Your task to perform on an android device: allow cookies in the chrome app Image 0: 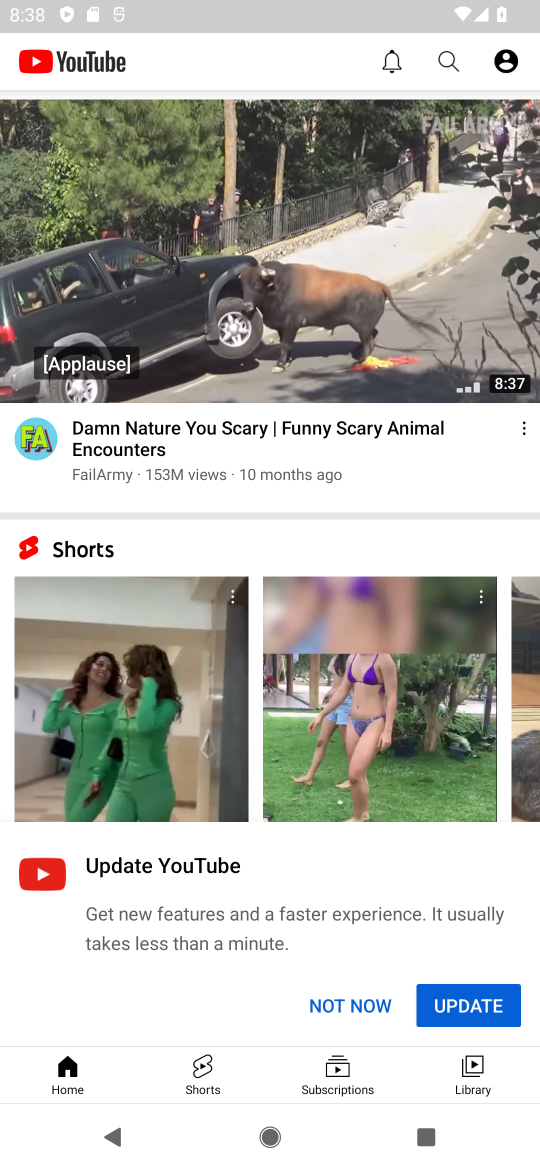
Step 0: press back button
Your task to perform on an android device: allow cookies in the chrome app Image 1: 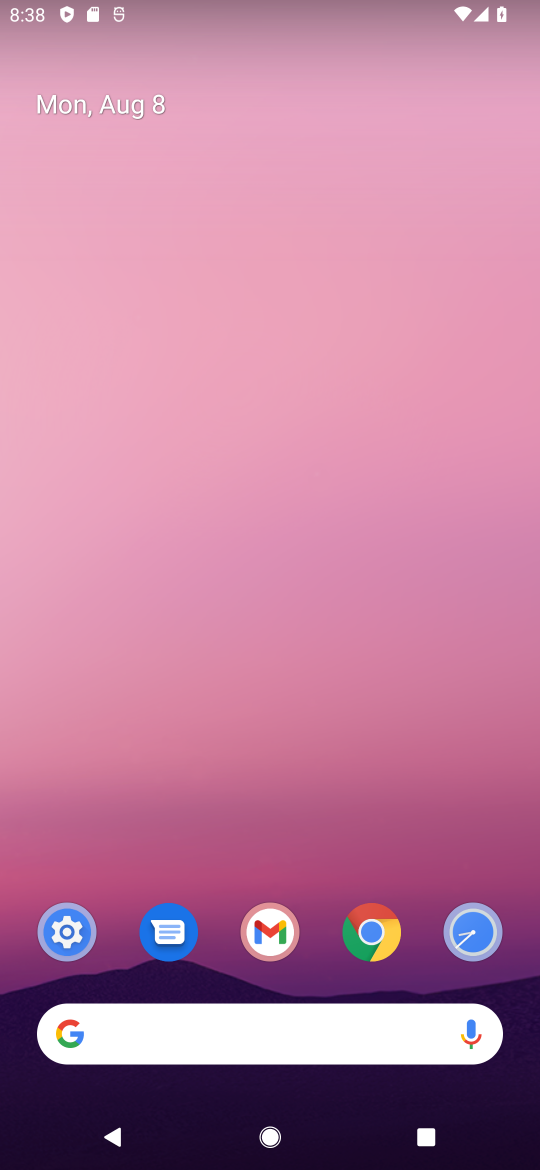
Step 1: click (378, 923)
Your task to perform on an android device: allow cookies in the chrome app Image 2: 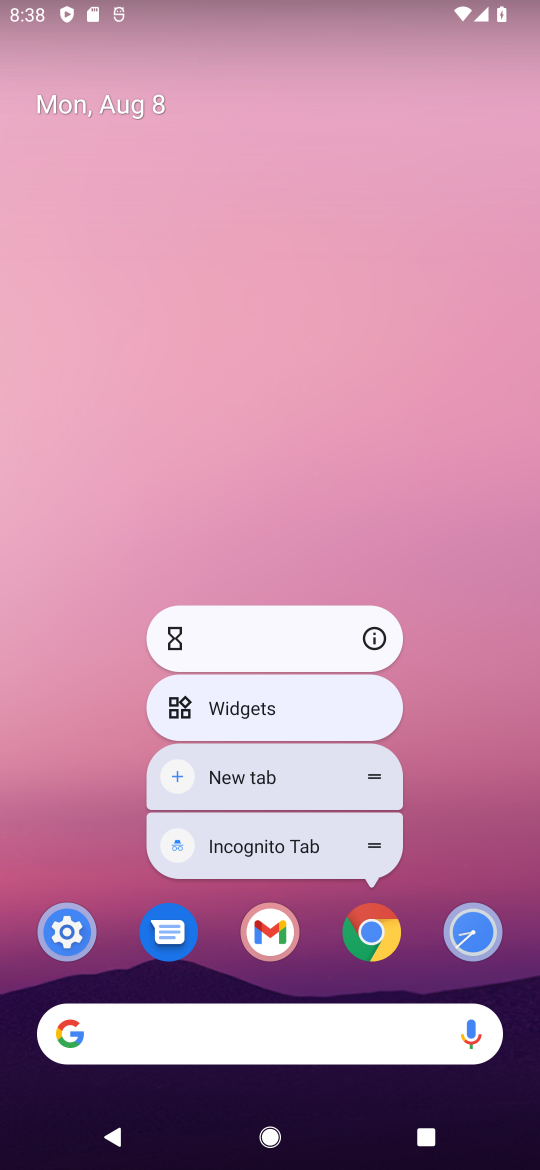
Step 2: click (367, 934)
Your task to perform on an android device: allow cookies in the chrome app Image 3: 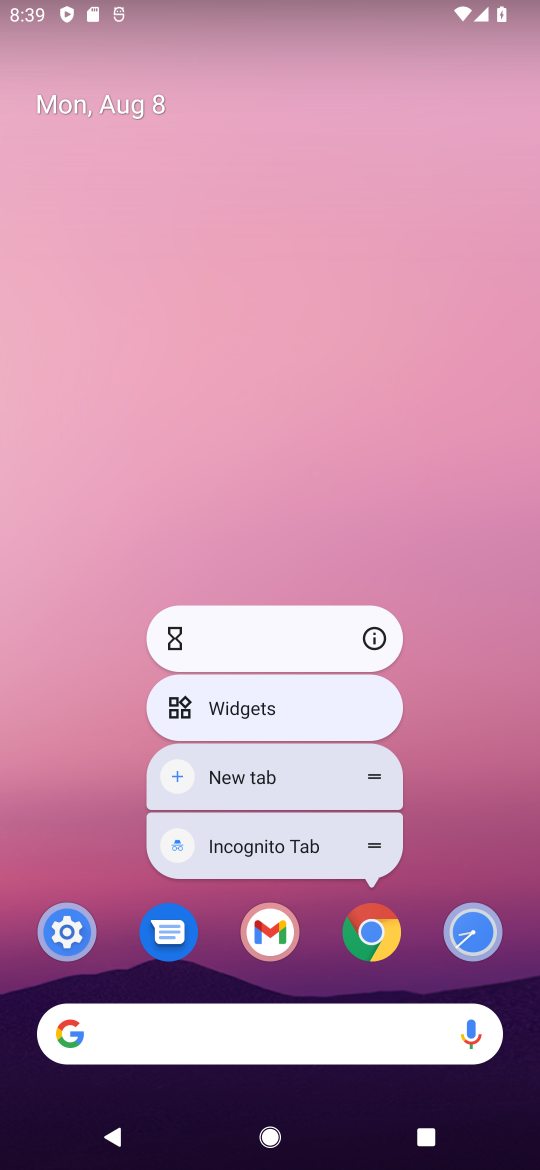
Step 3: click (357, 937)
Your task to perform on an android device: allow cookies in the chrome app Image 4: 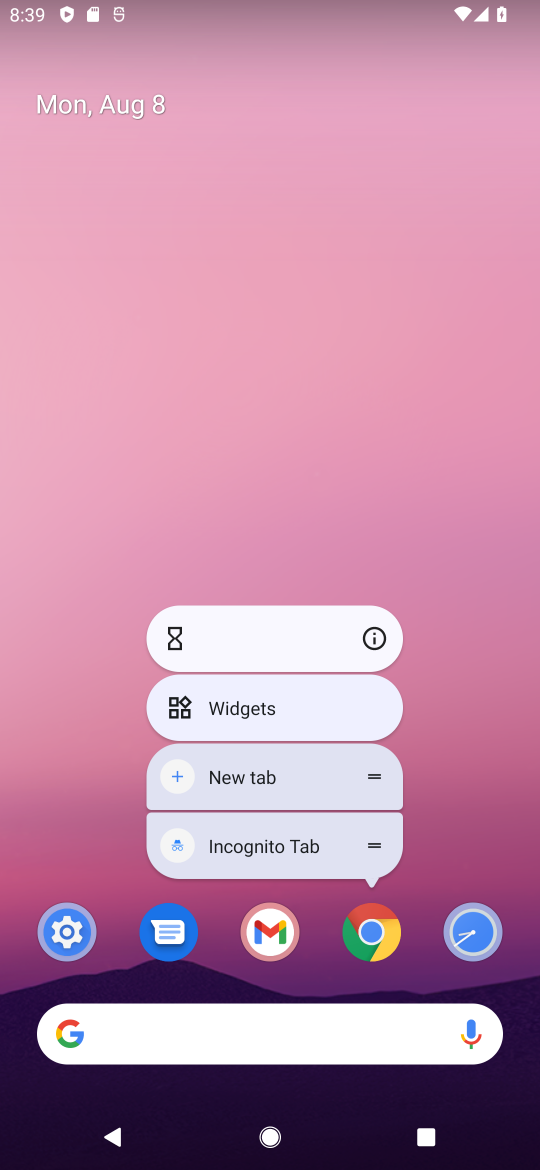
Step 4: click (358, 925)
Your task to perform on an android device: allow cookies in the chrome app Image 5: 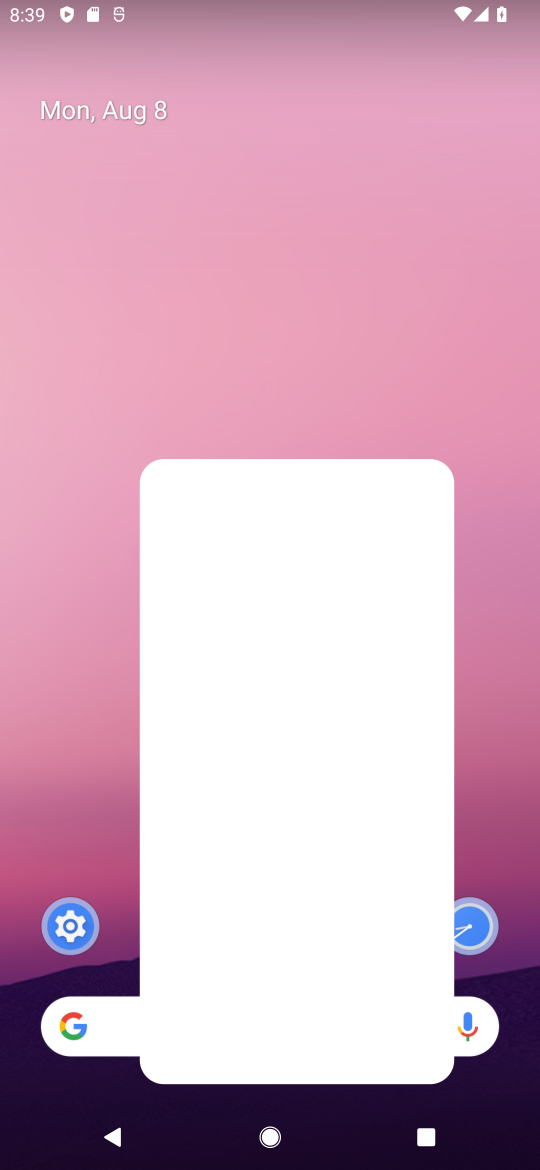
Step 5: click (367, 932)
Your task to perform on an android device: allow cookies in the chrome app Image 6: 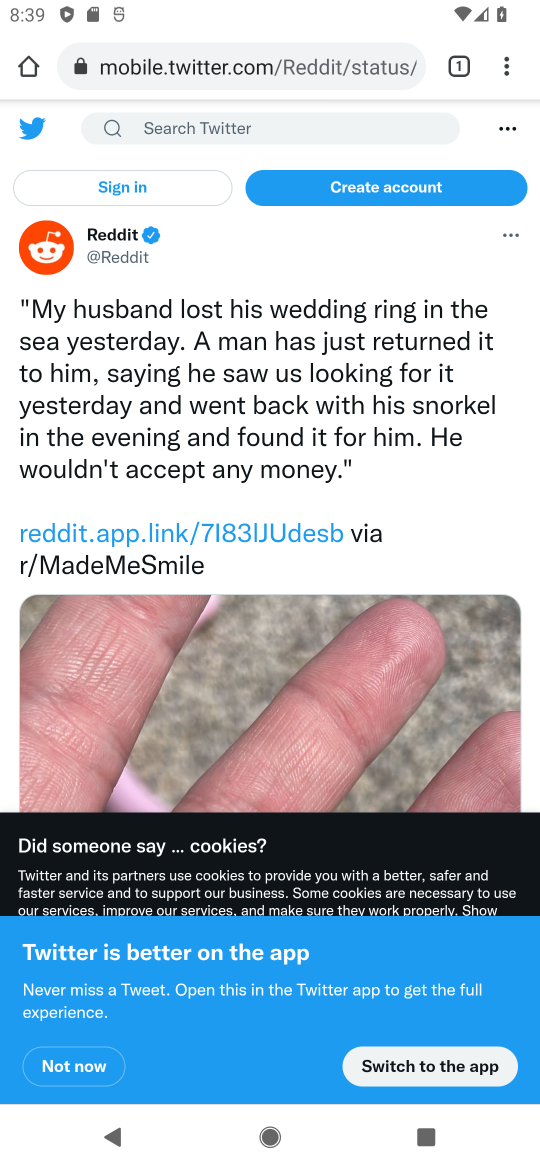
Step 6: drag from (504, 70) to (317, 862)
Your task to perform on an android device: allow cookies in the chrome app Image 7: 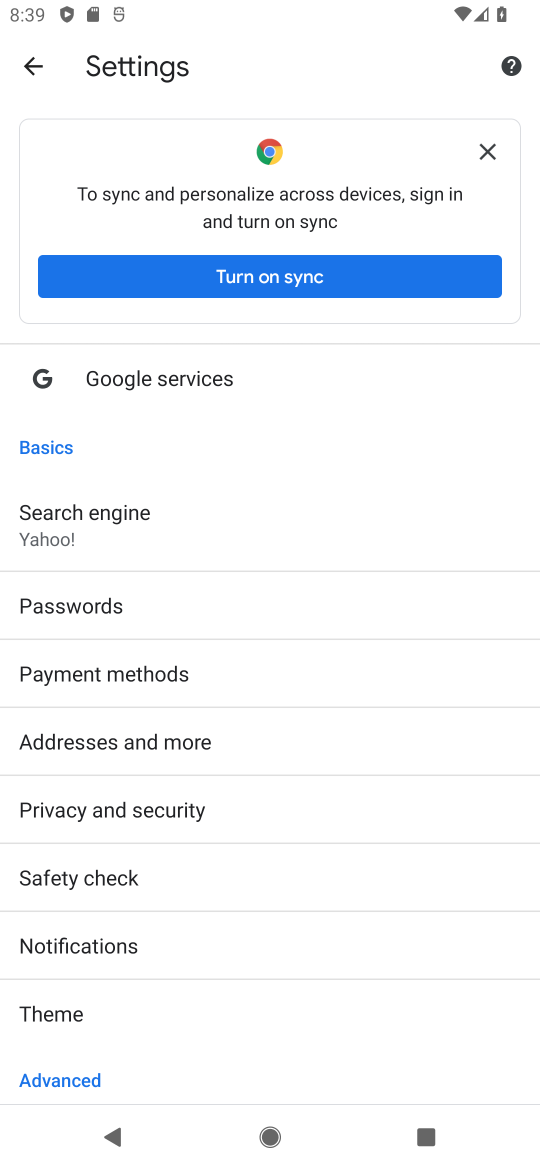
Step 7: drag from (266, 942) to (407, 2)
Your task to perform on an android device: allow cookies in the chrome app Image 8: 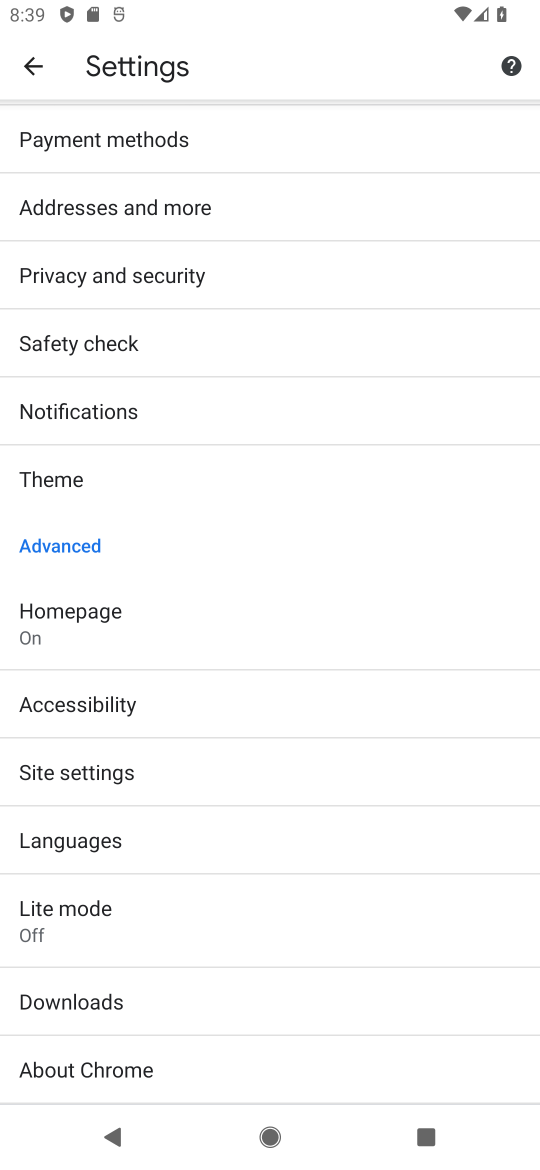
Step 8: click (155, 775)
Your task to perform on an android device: allow cookies in the chrome app Image 9: 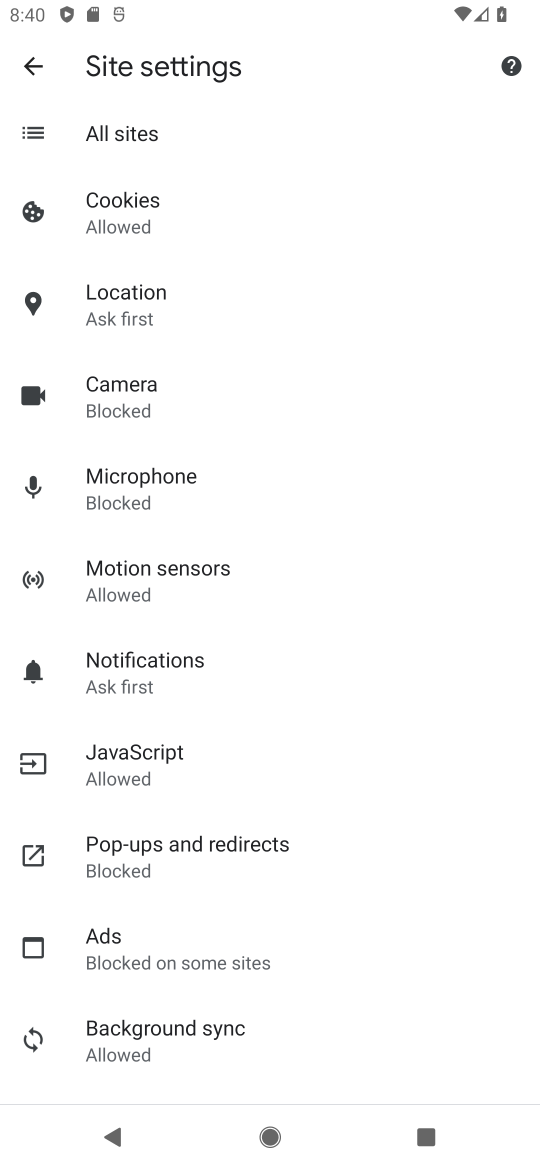
Step 9: click (176, 210)
Your task to perform on an android device: allow cookies in the chrome app Image 10: 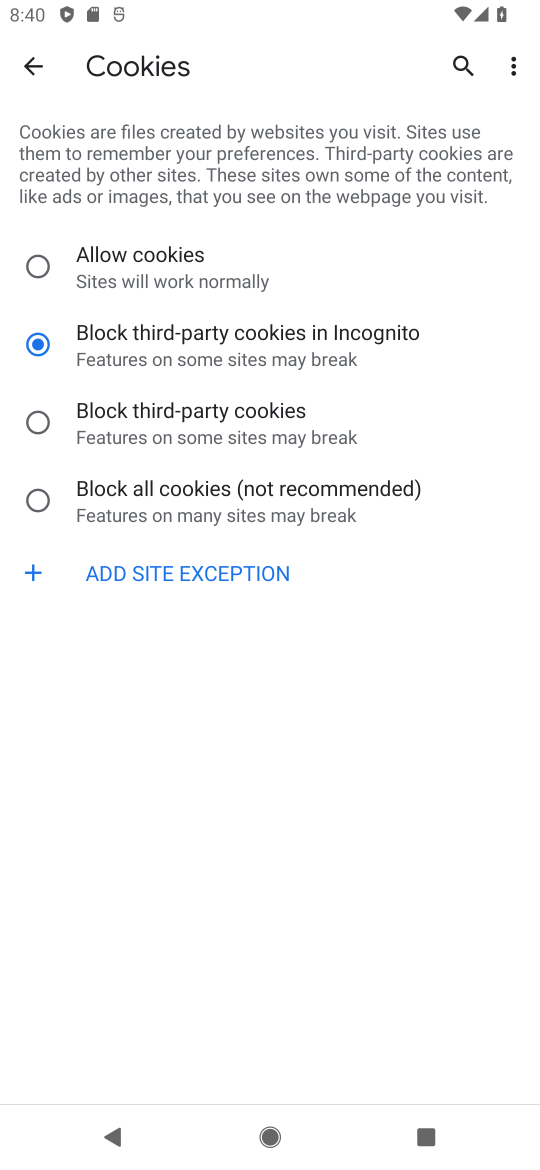
Step 10: click (146, 259)
Your task to perform on an android device: allow cookies in the chrome app Image 11: 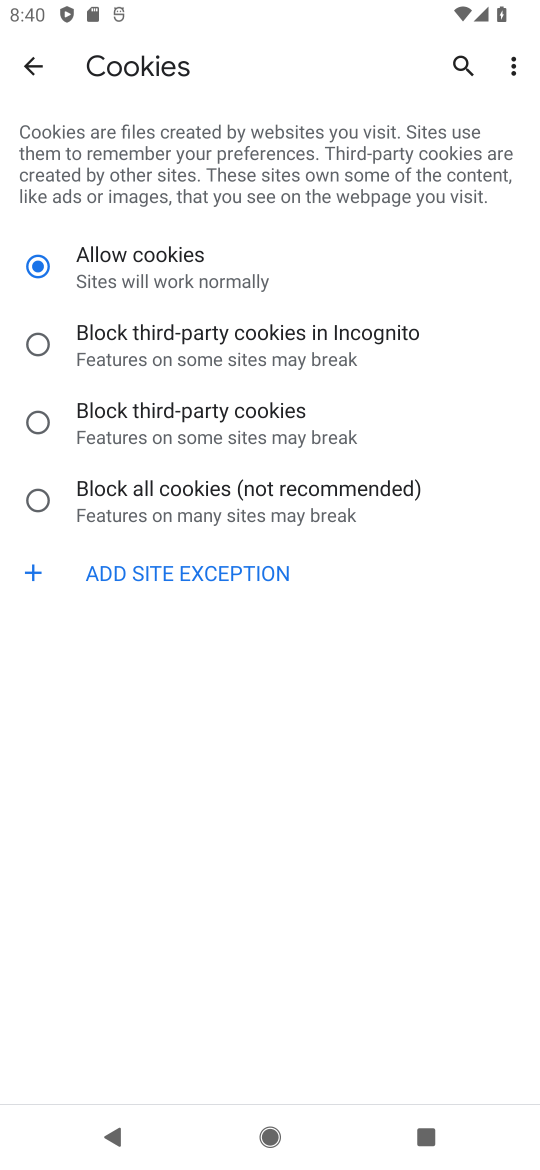
Step 11: task complete